Your task to perform on an android device: turn on location history Image 0: 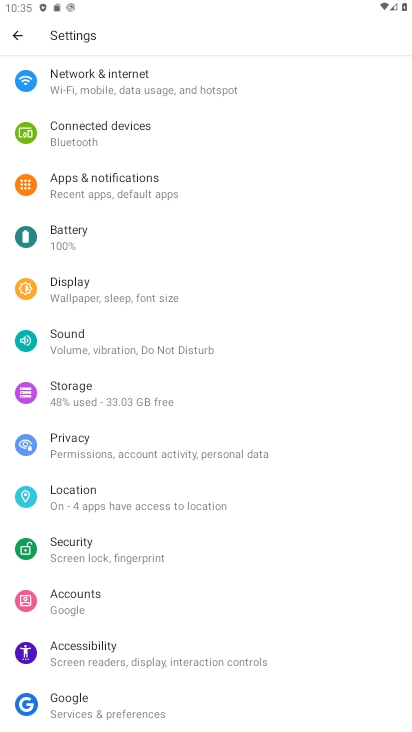
Step 0: click (75, 498)
Your task to perform on an android device: turn on location history Image 1: 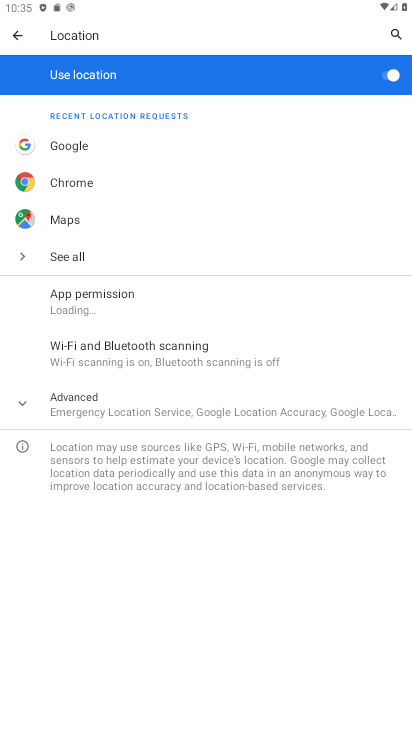
Step 1: click (118, 406)
Your task to perform on an android device: turn on location history Image 2: 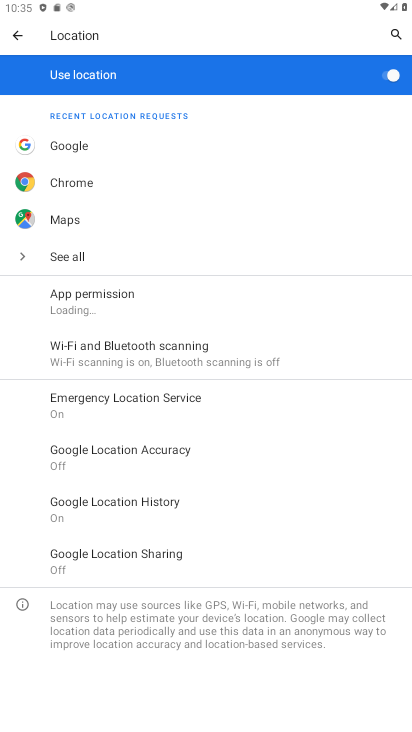
Step 2: click (157, 510)
Your task to perform on an android device: turn on location history Image 3: 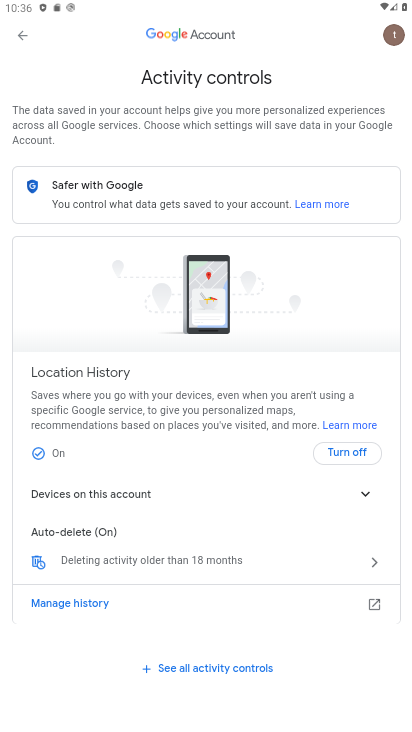
Step 3: click (356, 455)
Your task to perform on an android device: turn on location history Image 4: 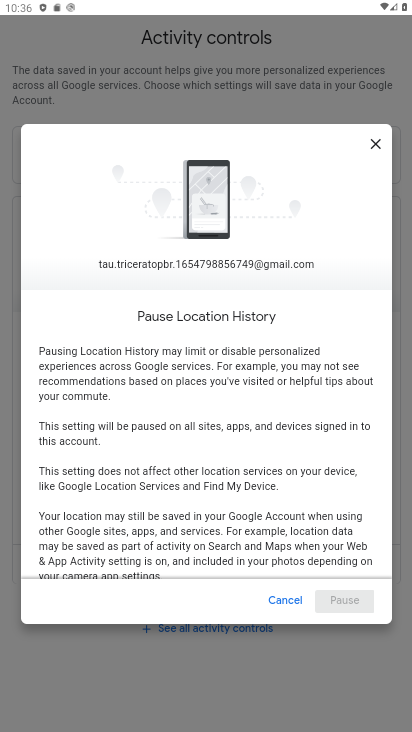
Step 4: click (296, 595)
Your task to perform on an android device: turn on location history Image 5: 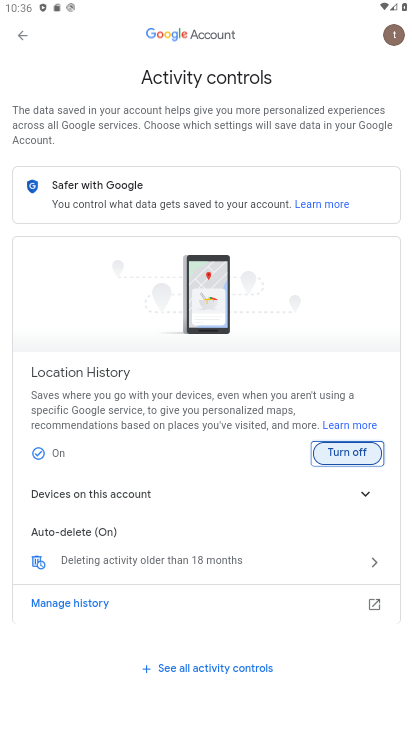
Step 5: task complete